Your task to perform on an android device: Check the news Image 0: 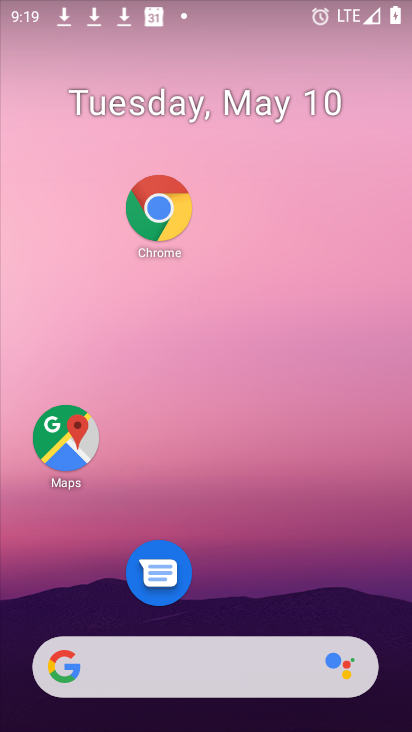
Step 0: drag from (283, 687) to (252, 310)
Your task to perform on an android device: Check the news Image 1: 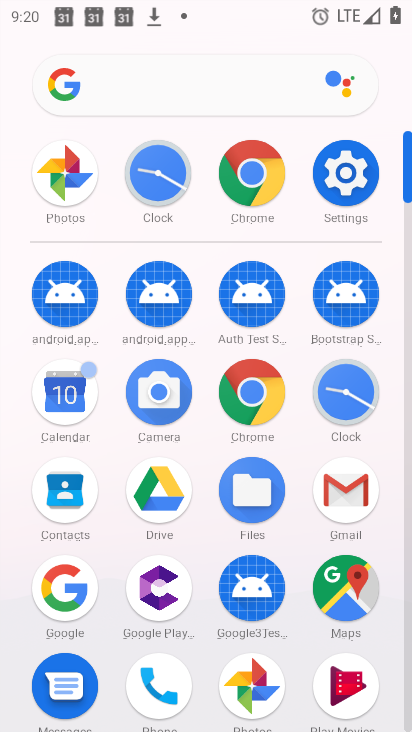
Step 1: click (160, 87)
Your task to perform on an android device: Check the news Image 2: 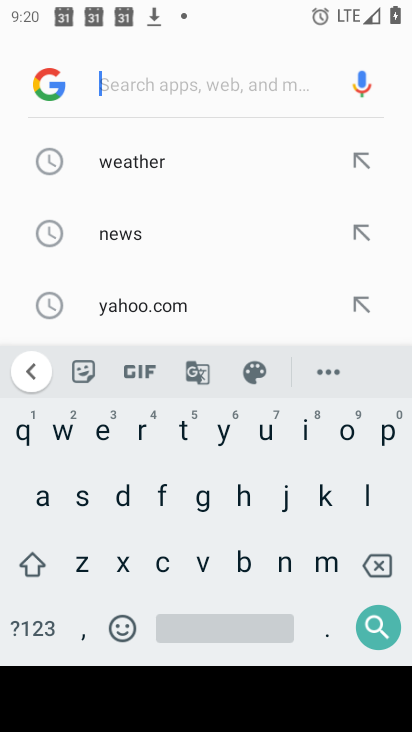
Step 2: click (128, 231)
Your task to perform on an android device: Check the news Image 3: 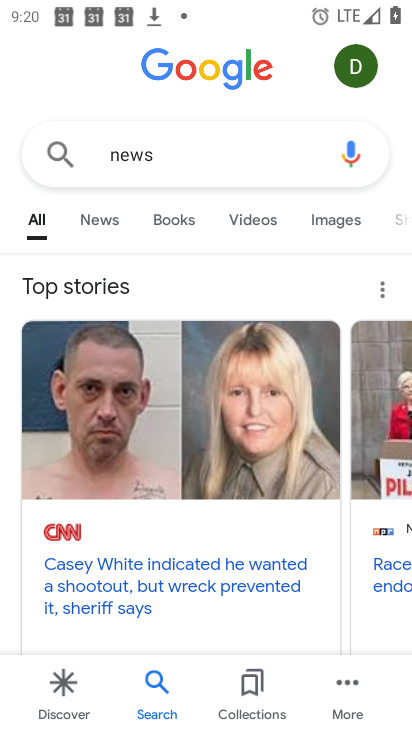
Step 3: task complete